Your task to perform on an android device: Open Chrome and go to the settings page Image 0: 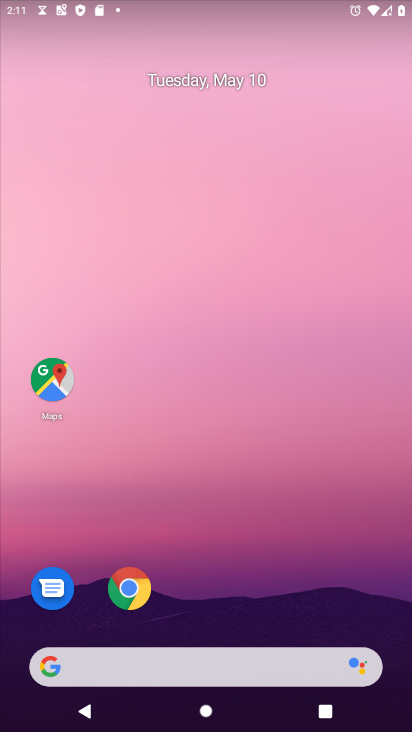
Step 0: drag from (234, 613) to (273, 242)
Your task to perform on an android device: Open Chrome and go to the settings page Image 1: 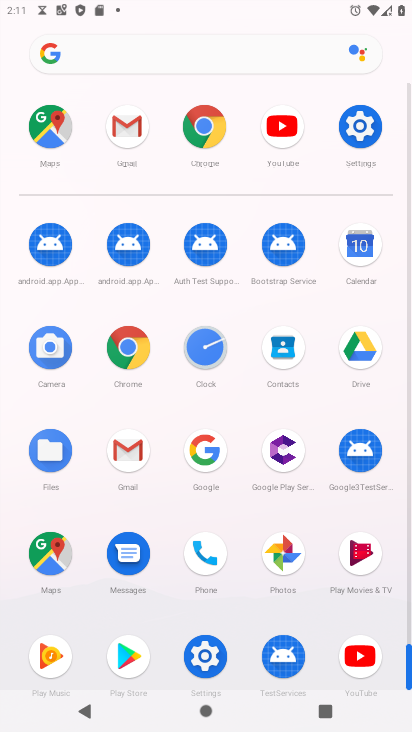
Step 1: click (195, 123)
Your task to perform on an android device: Open Chrome and go to the settings page Image 2: 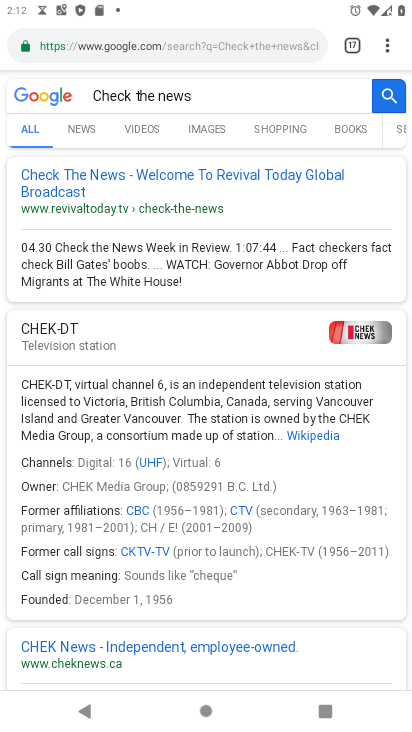
Step 2: click (382, 41)
Your task to perform on an android device: Open Chrome and go to the settings page Image 3: 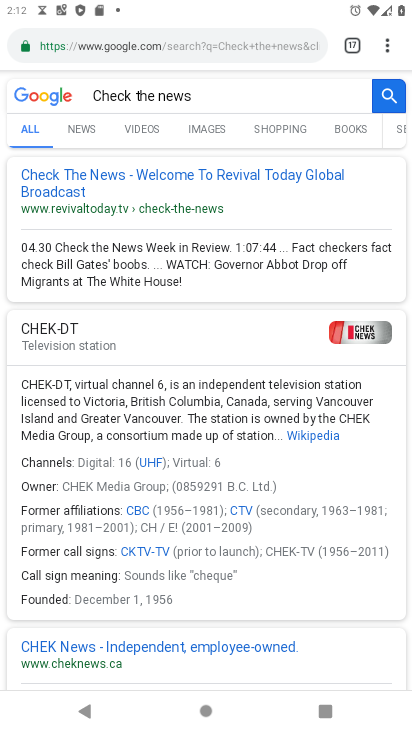
Step 3: click (377, 39)
Your task to perform on an android device: Open Chrome and go to the settings page Image 4: 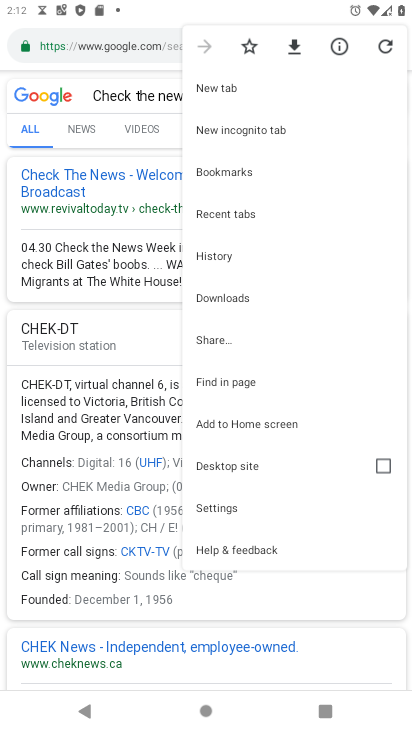
Step 4: click (237, 512)
Your task to perform on an android device: Open Chrome and go to the settings page Image 5: 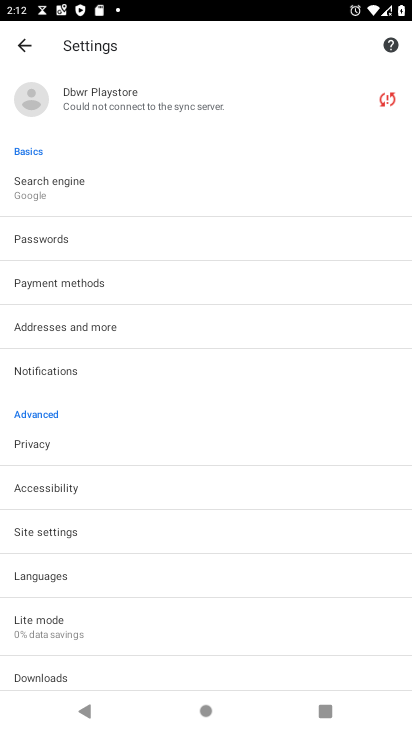
Step 5: task complete